Your task to perform on an android device: change alarm snooze length Image 0: 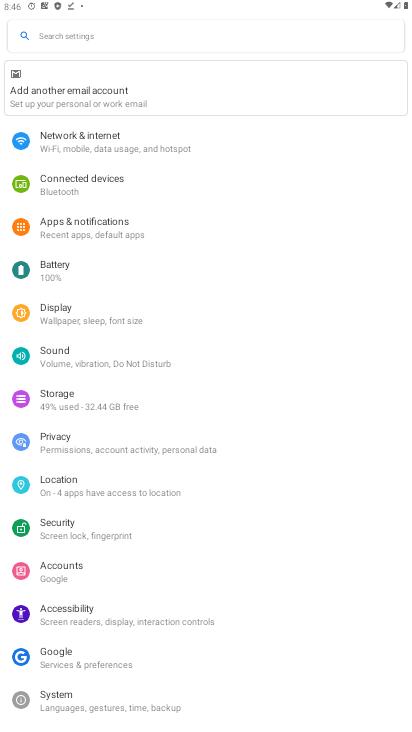
Step 0: press home button
Your task to perform on an android device: change alarm snooze length Image 1: 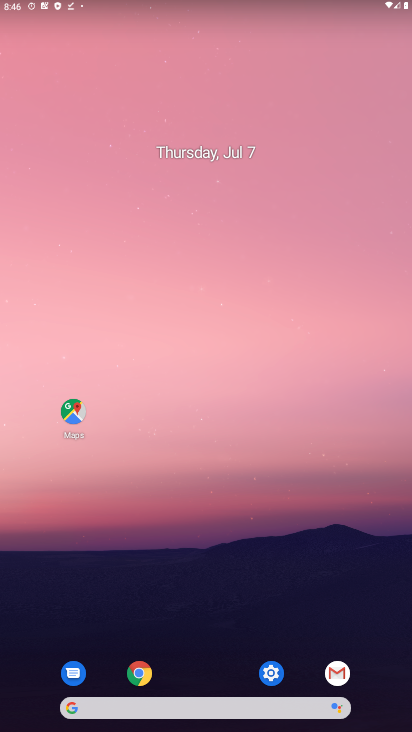
Step 1: drag from (231, 719) to (151, 144)
Your task to perform on an android device: change alarm snooze length Image 2: 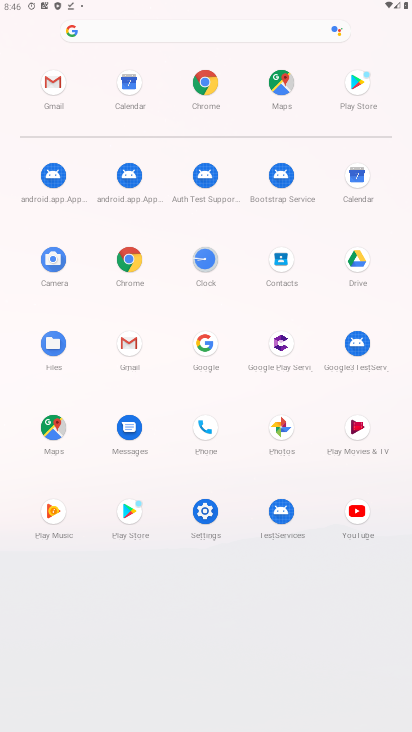
Step 2: click (189, 260)
Your task to perform on an android device: change alarm snooze length Image 3: 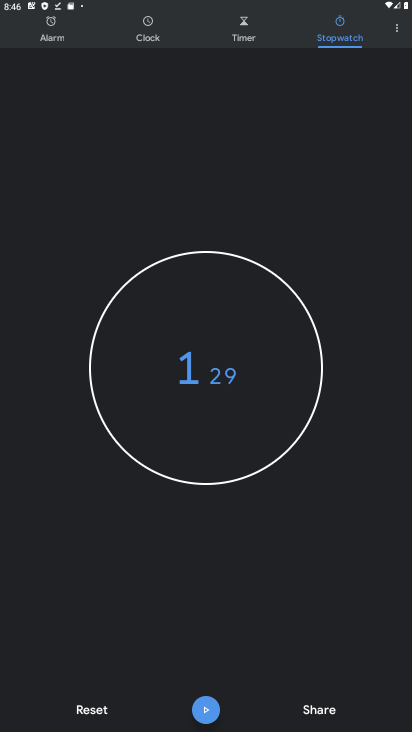
Step 3: click (388, 34)
Your task to perform on an android device: change alarm snooze length Image 4: 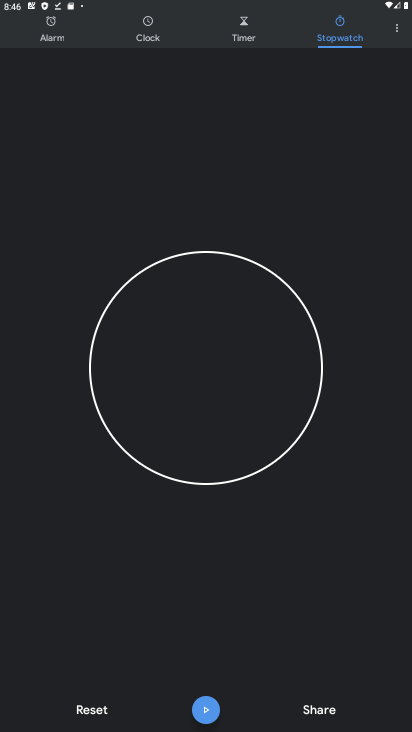
Step 4: click (398, 37)
Your task to perform on an android device: change alarm snooze length Image 5: 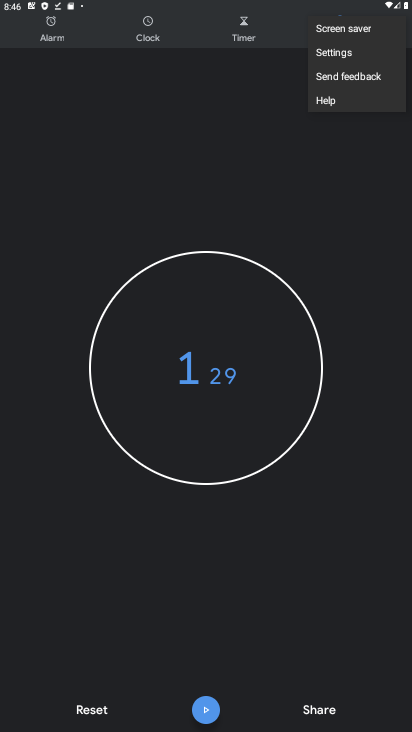
Step 5: click (345, 58)
Your task to perform on an android device: change alarm snooze length Image 6: 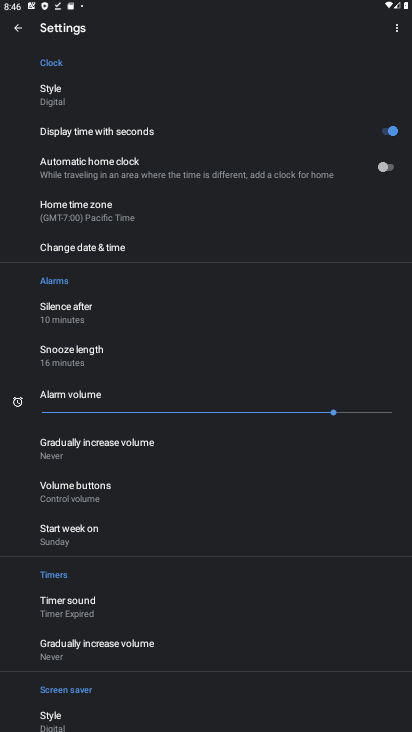
Step 6: click (106, 310)
Your task to perform on an android device: change alarm snooze length Image 7: 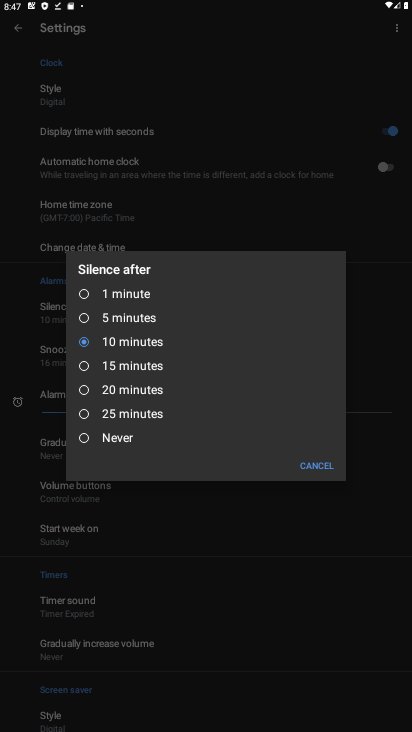
Step 7: click (311, 473)
Your task to perform on an android device: change alarm snooze length Image 8: 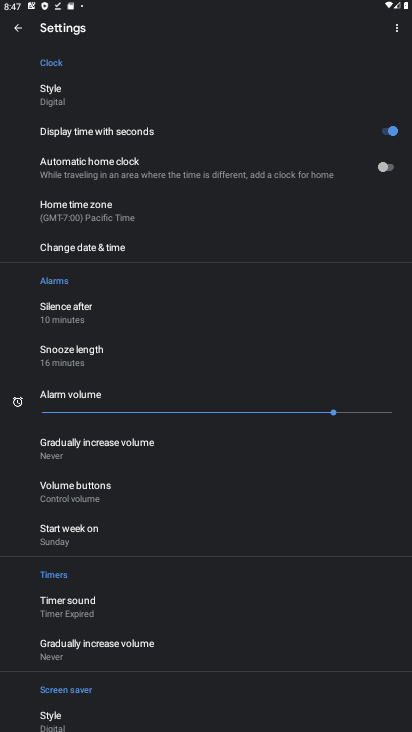
Step 8: click (99, 352)
Your task to perform on an android device: change alarm snooze length Image 9: 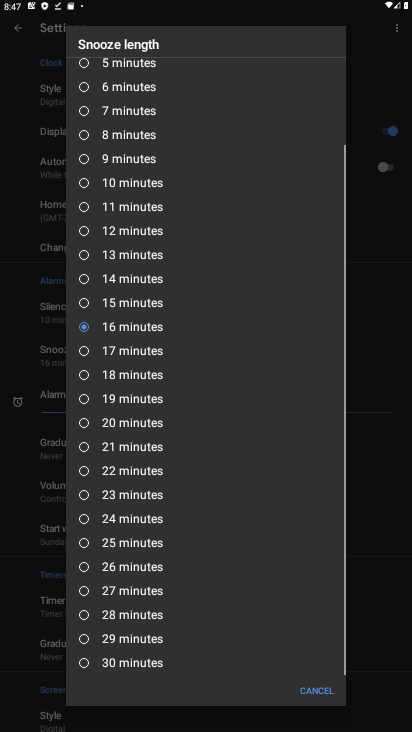
Step 9: click (139, 523)
Your task to perform on an android device: change alarm snooze length Image 10: 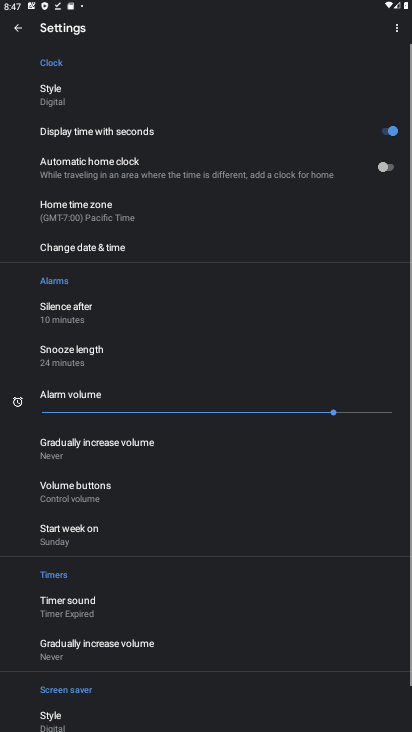
Step 10: click (127, 363)
Your task to perform on an android device: change alarm snooze length Image 11: 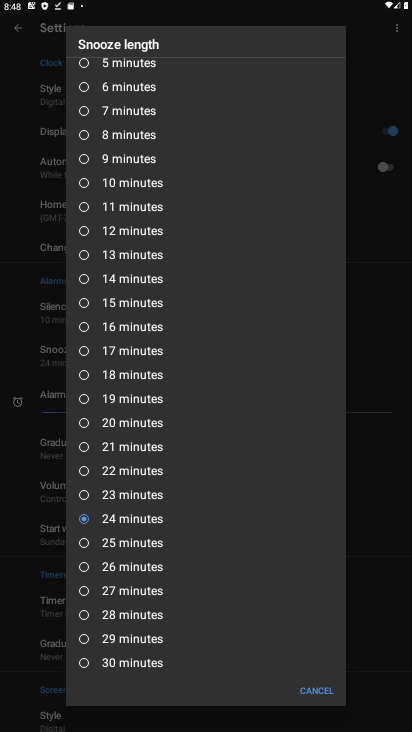
Step 11: task complete